Your task to perform on an android device: turn on airplane mode Image 0: 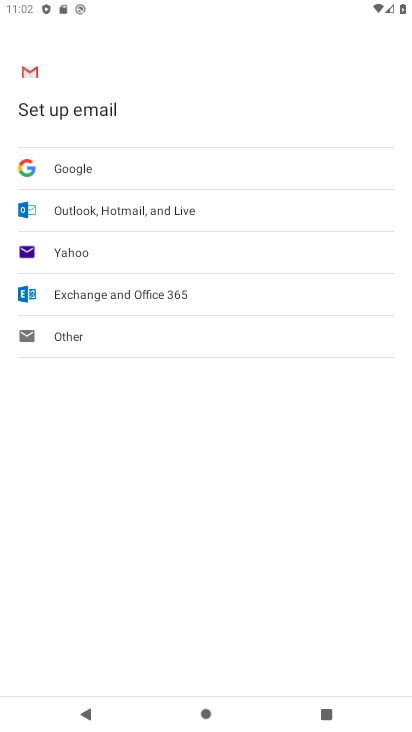
Step 0: press home button
Your task to perform on an android device: turn on airplane mode Image 1: 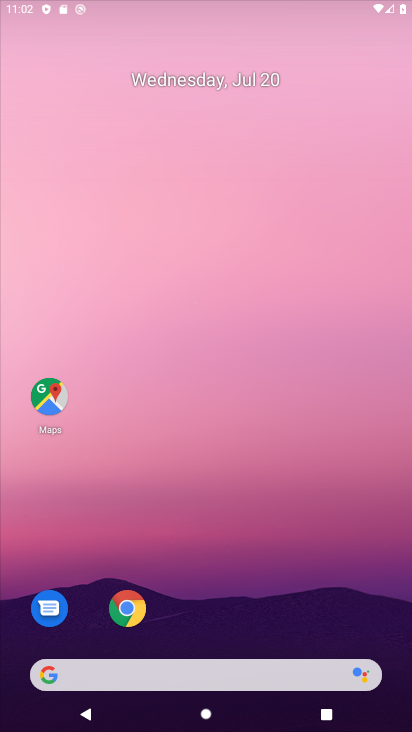
Step 1: drag from (385, 668) to (190, 57)
Your task to perform on an android device: turn on airplane mode Image 2: 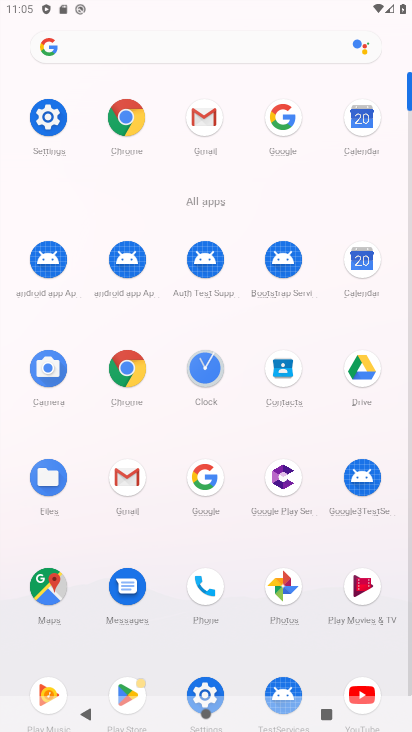
Step 2: drag from (242, 7) to (290, 576)
Your task to perform on an android device: turn on airplane mode Image 3: 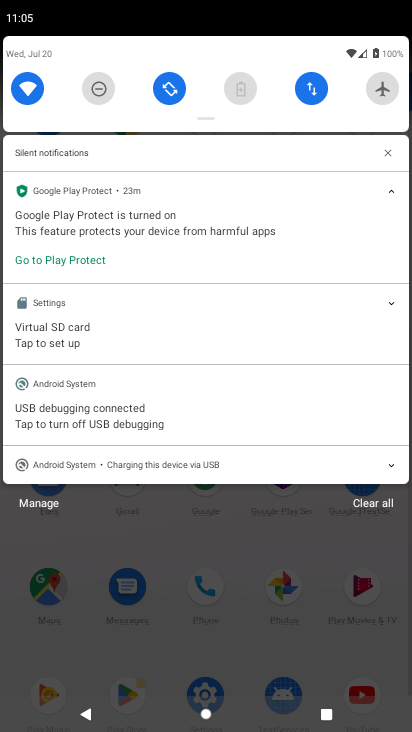
Step 3: click (373, 87)
Your task to perform on an android device: turn on airplane mode Image 4: 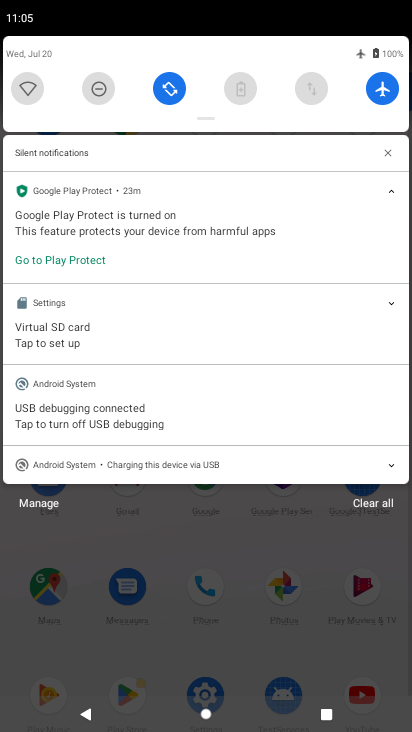
Step 4: task complete